Your task to perform on an android device: What's the weather? Image 0: 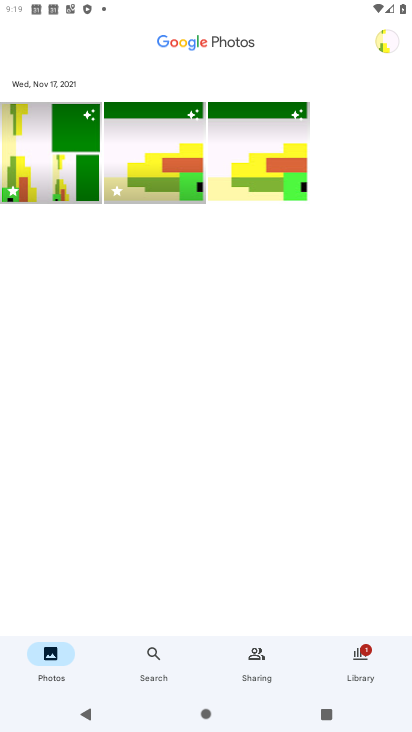
Step 0: press home button
Your task to perform on an android device: What's the weather? Image 1: 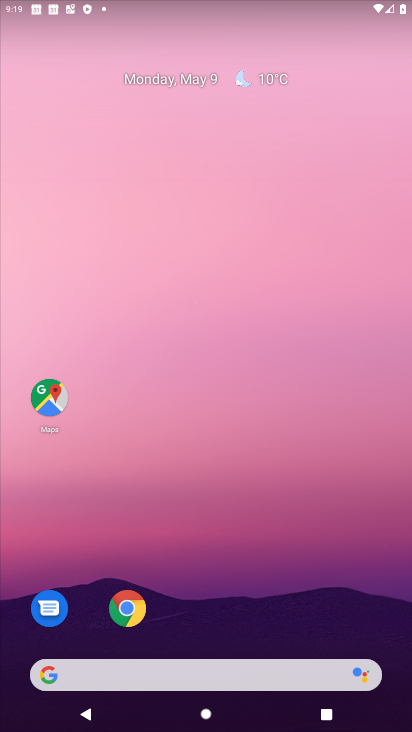
Step 1: drag from (304, 625) to (362, 126)
Your task to perform on an android device: What's the weather? Image 2: 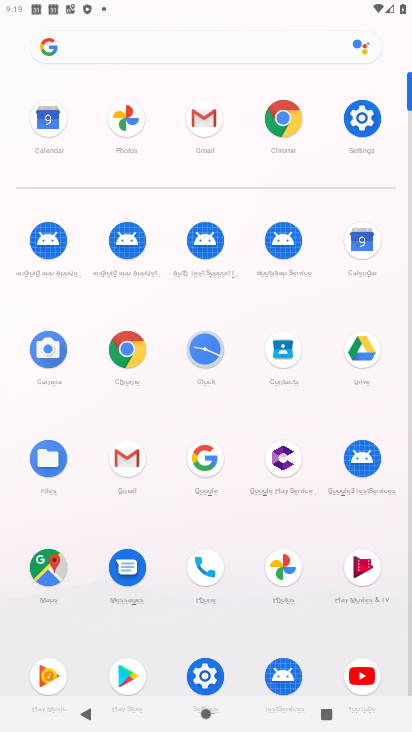
Step 2: press back button
Your task to perform on an android device: What's the weather? Image 3: 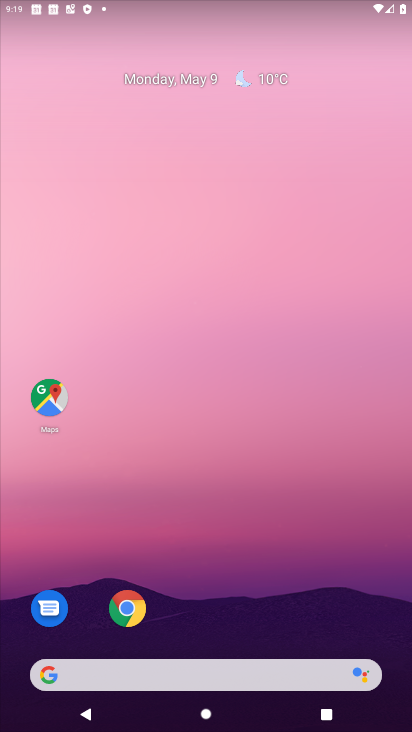
Step 3: click (285, 72)
Your task to perform on an android device: What's the weather? Image 4: 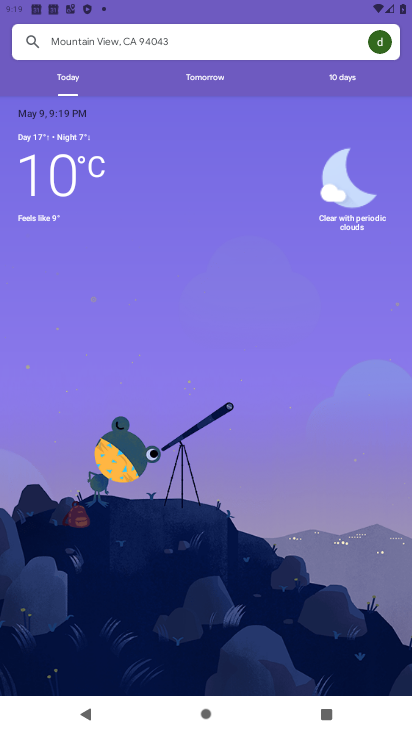
Step 4: task complete